Your task to perform on an android device: Open the phone app and click the voicemail tab. Image 0: 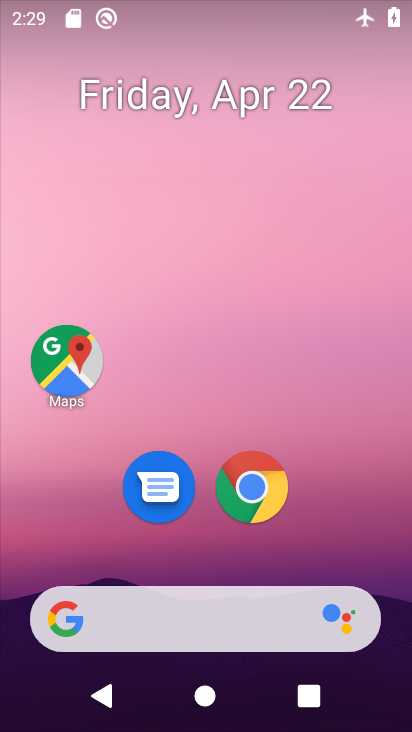
Step 0: drag from (192, 552) to (223, 183)
Your task to perform on an android device: Open the phone app and click the voicemail tab. Image 1: 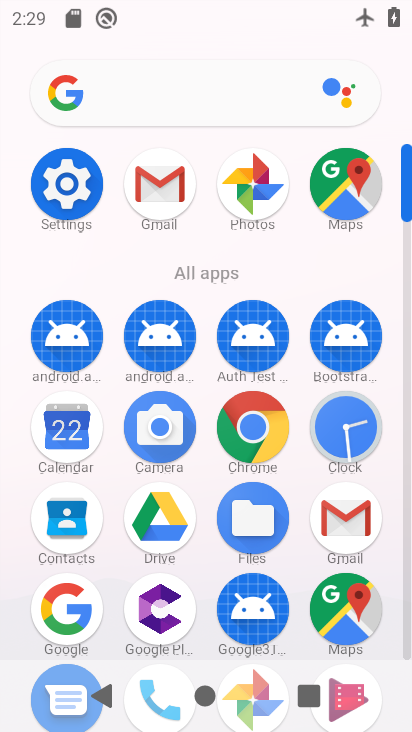
Step 1: drag from (204, 283) to (205, 124)
Your task to perform on an android device: Open the phone app and click the voicemail tab. Image 2: 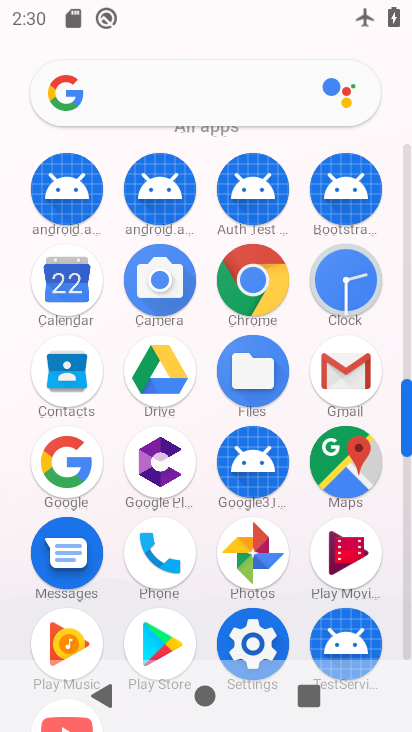
Step 2: click (165, 560)
Your task to perform on an android device: Open the phone app and click the voicemail tab. Image 3: 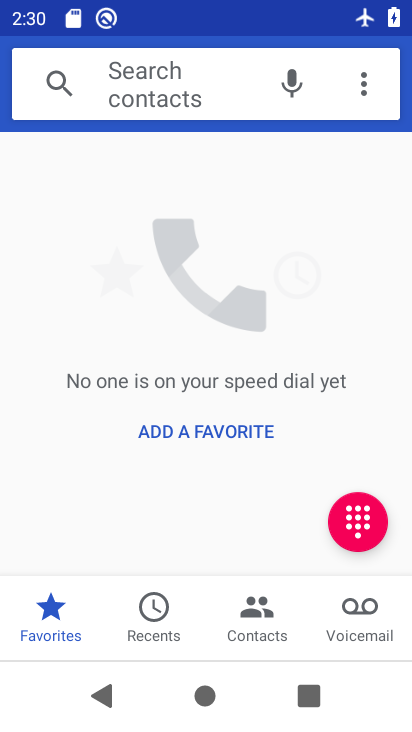
Step 3: click (363, 607)
Your task to perform on an android device: Open the phone app and click the voicemail tab. Image 4: 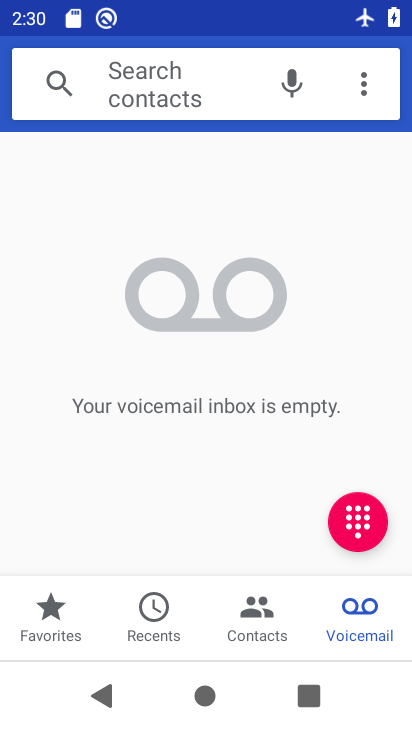
Step 4: task complete